Your task to perform on an android device: Open Google Maps and go to "Timeline" Image 0: 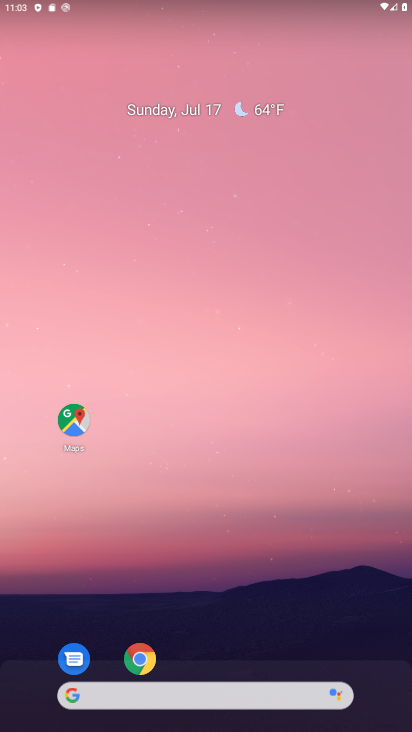
Step 0: drag from (338, 624) to (381, 82)
Your task to perform on an android device: Open Google Maps and go to "Timeline" Image 1: 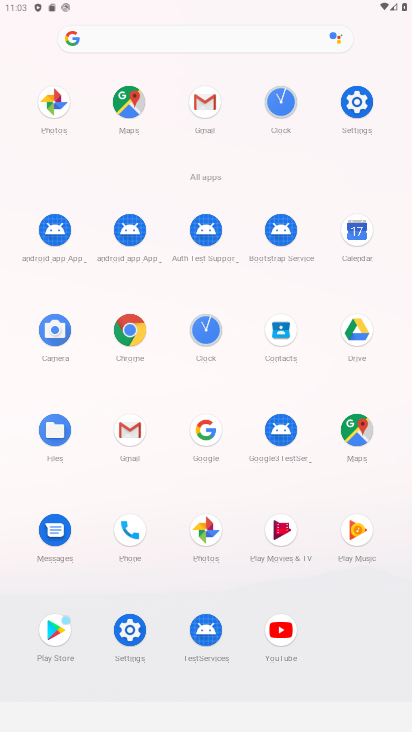
Step 1: click (358, 437)
Your task to perform on an android device: Open Google Maps and go to "Timeline" Image 2: 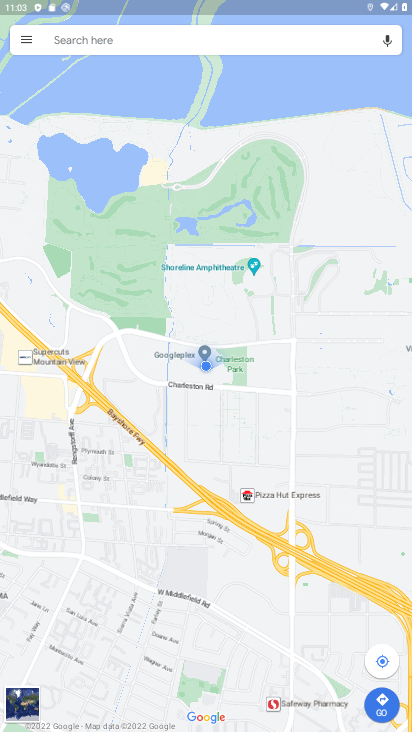
Step 2: click (22, 37)
Your task to perform on an android device: Open Google Maps and go to "Timeline" Image 3: 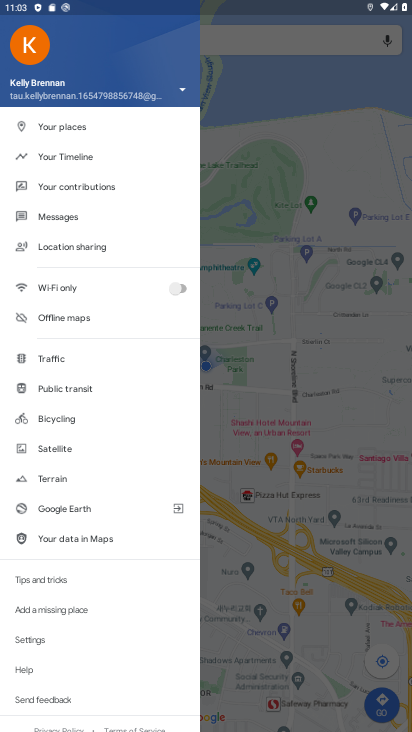
Step 3: click (81, 159)
Your task to perform on an android device: Open Google Maps and go to "Timeline" Image 4: 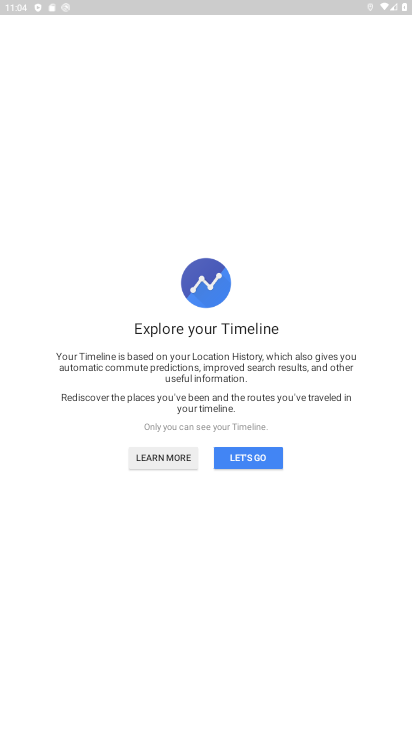
Step 4: task complete